Your task to perform on an android device: check battery use Image 0: 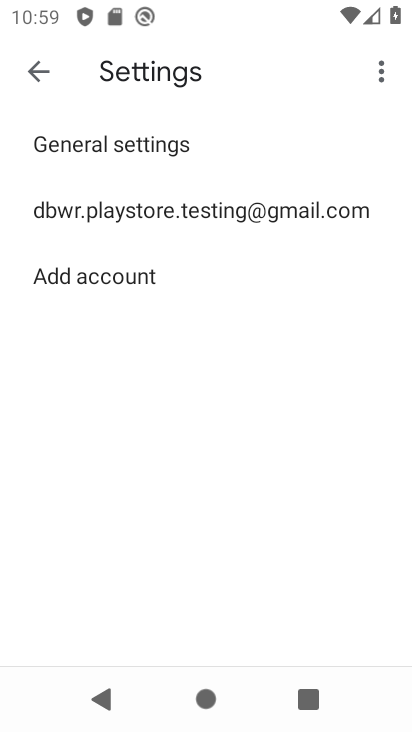
Step 0: drag from (209, 17) to (271, 626)
Your task to perform on an android device: check battery use Image 1: 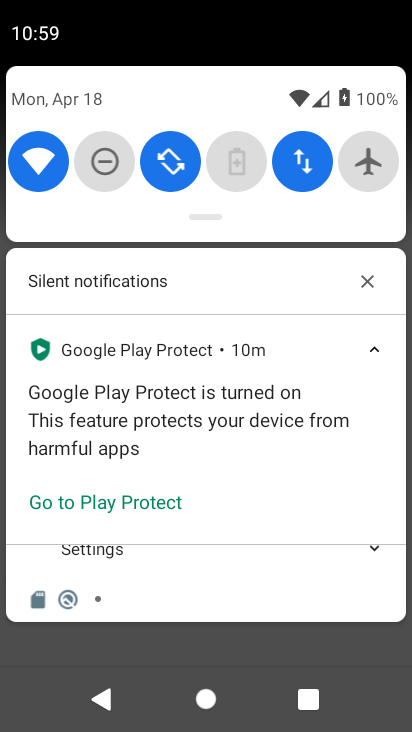
Step 1: drag from (245, 86) to (192, 522)
Your task to perform on an android device: check battery use Image 2: 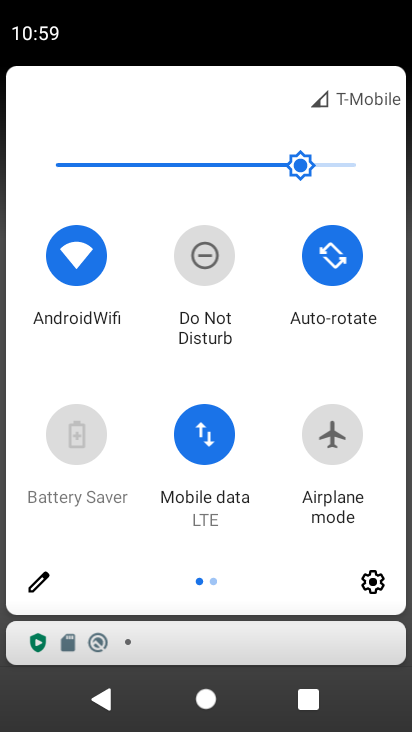
Step 2: click (377, 579)
Your task to perform on an android device: check battery use Image 3: 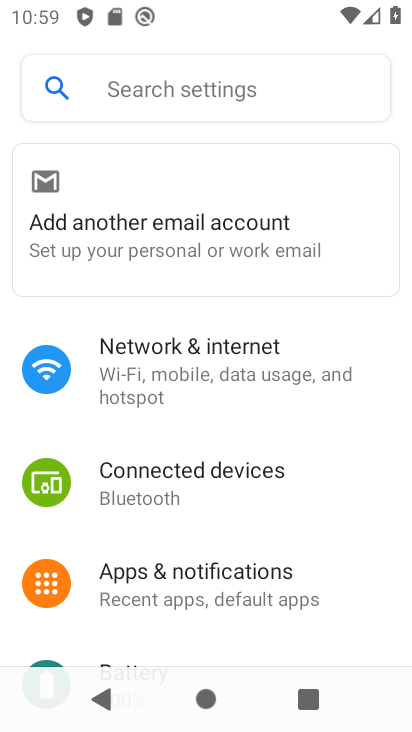
Step 3: drag from (73, 547) to (203, 25)
Your task to perform on an android device: check battery use Image 4: 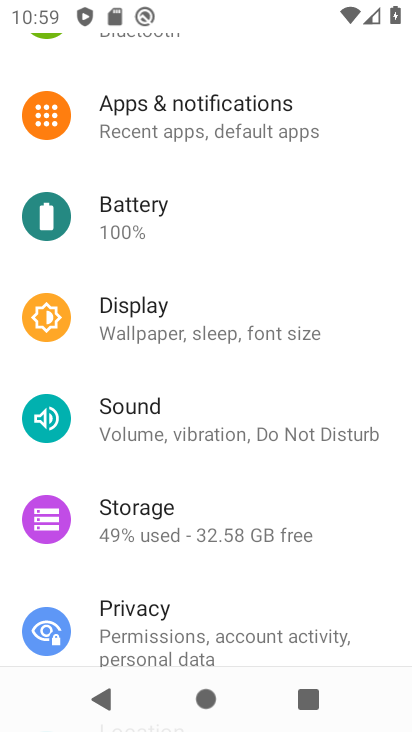
Step 4: click (173, 220)
Your task to perform on an android device: check battery use Image 5: 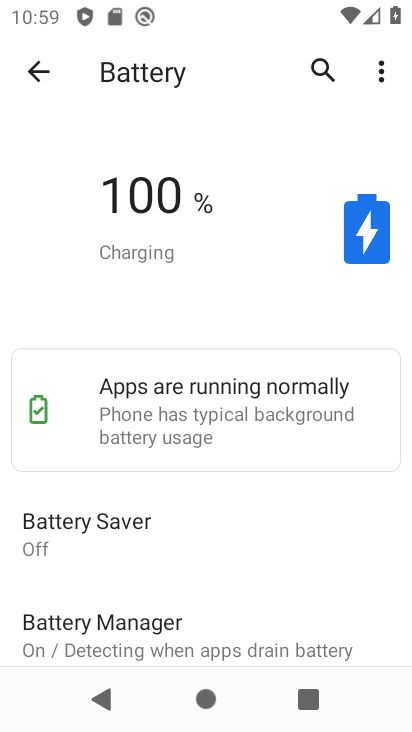
Step 5: click (392, 72)
Your task to perform on an android device: check battery use Image 6: 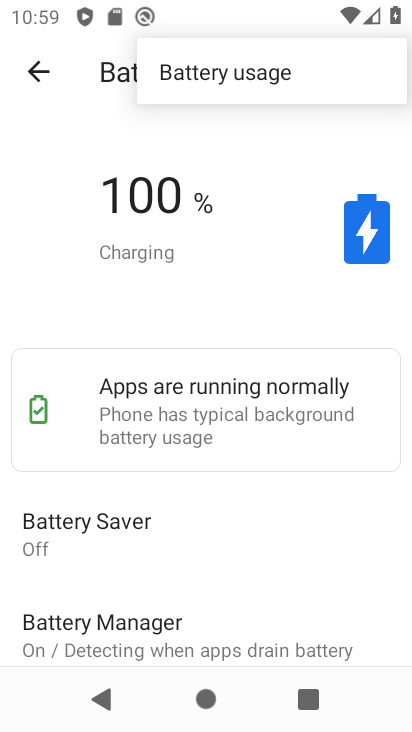
Step 6: click (327, 68)
Your task to perform on an android device: check battery use Image 7: 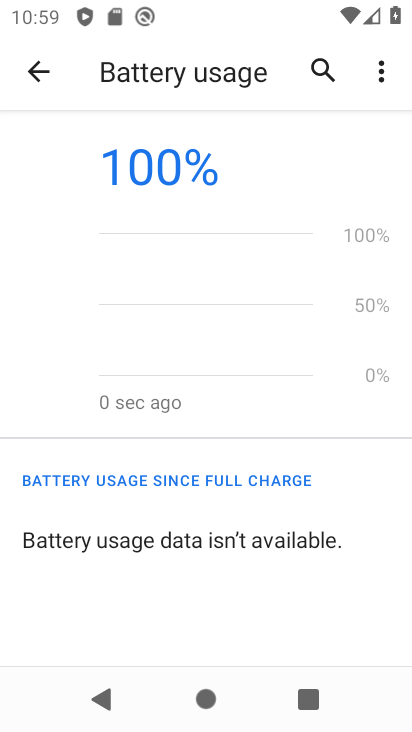
Step 7: task complete